Your task to perform on an android device: Go to notification settings Image 0: 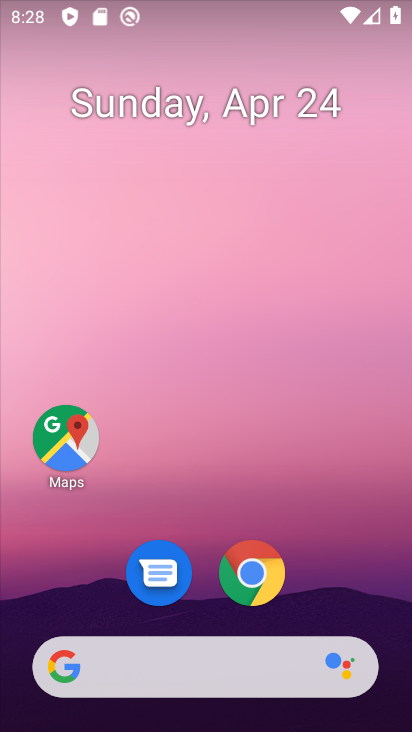
Step 0: drag from (328, 589) to (317, 15)
Your task to perform on an android device: Go to notification settings Image 1: 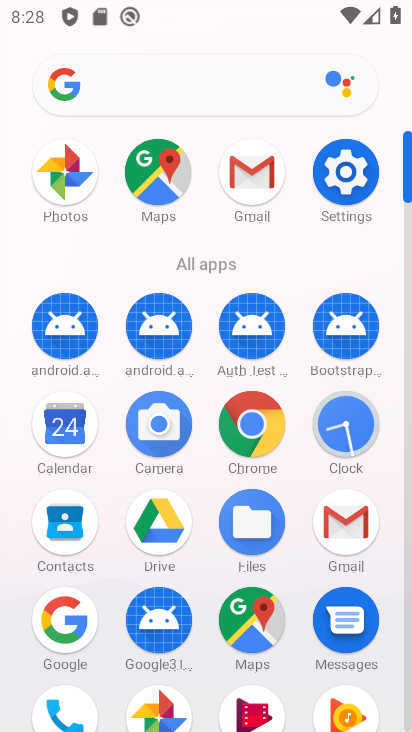
Step 1: click (334, 164)
Your task to perform on an android device: Go to notification settings Image 2: 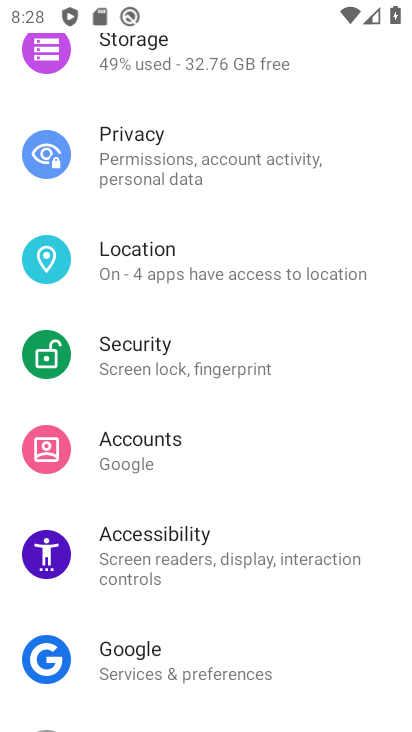
Step 2: drag from (310, 82) to (331, 731)
Your task to perform on an android device: Go to notification settings Image 3: 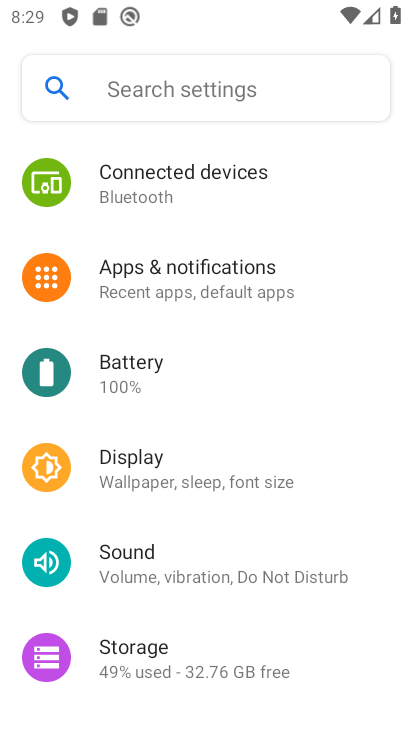
Step 3: drag from (253, 207) to (241, 629)
Your task to perform on an android device: Go to notification settings Image 4: 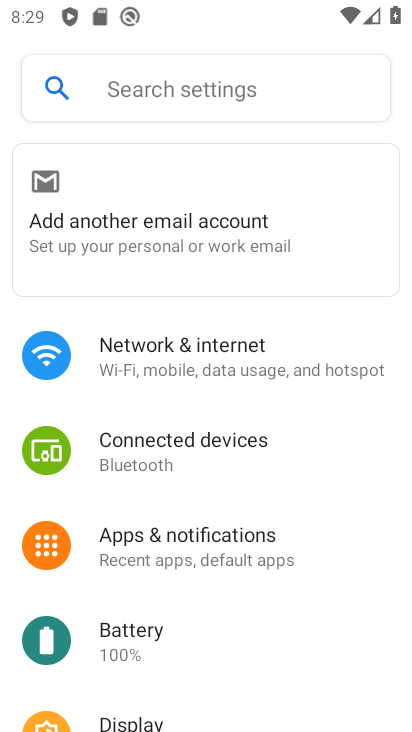
Step 4: click (209, 539)
Your task to perform on an android device: Go to notification settings Image 5: 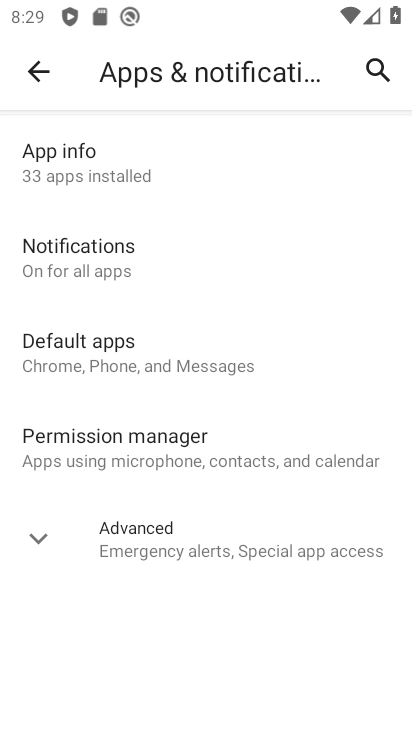
Step 5: click (98, 256)
Your task to perform on an android device: Go to notification settings Image 6: 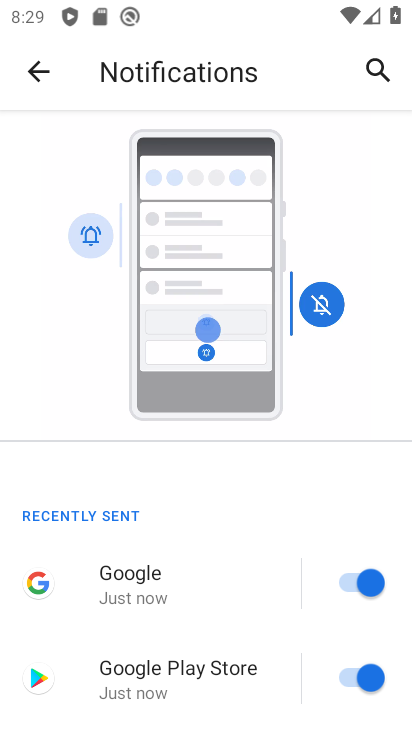
Step 6: task complete